Your task to perform on an android device: show emergency info Image 0: 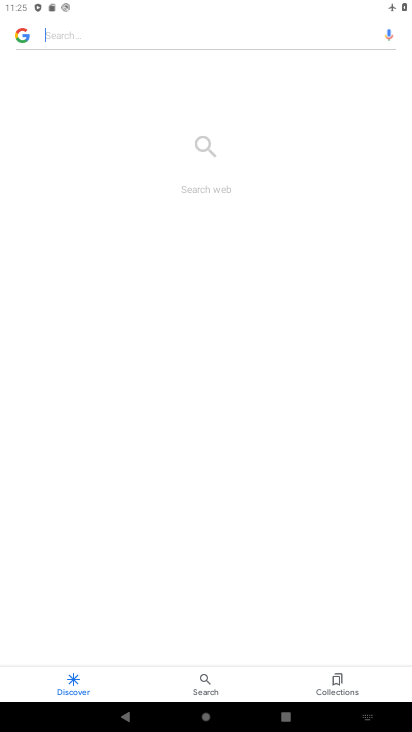
Step 0: press back button
Your task to perform on an android device: show emergency info Image 1: 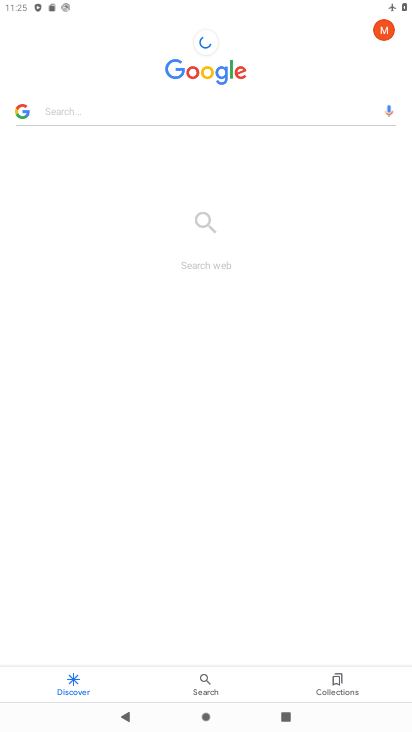
Step 1: press back button
Your task to perform on an android device: show emergency info Image 2: 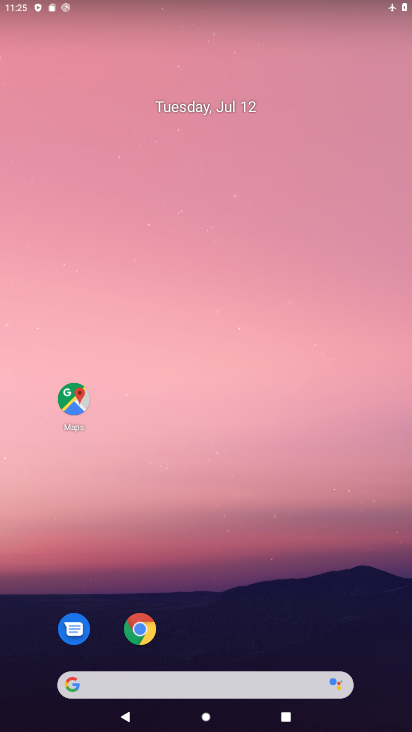
Step 2: drag from (215, 646) to (175, 138)
Your task to perform on an android device: show emergency info Image 3: 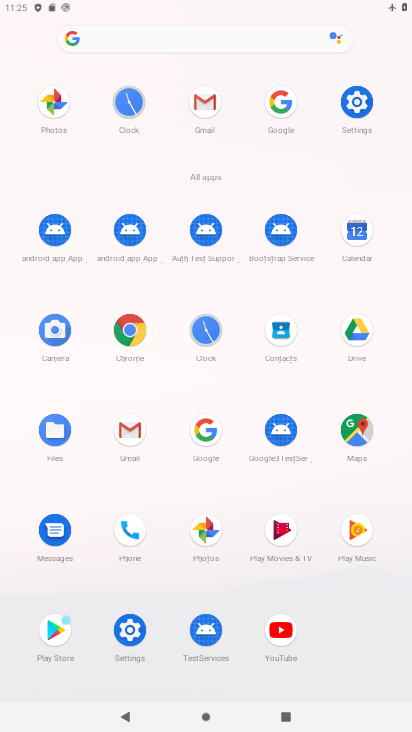
Step 3: click (359, 100)
Your task to perform on an android device: show emergency info Image 4: 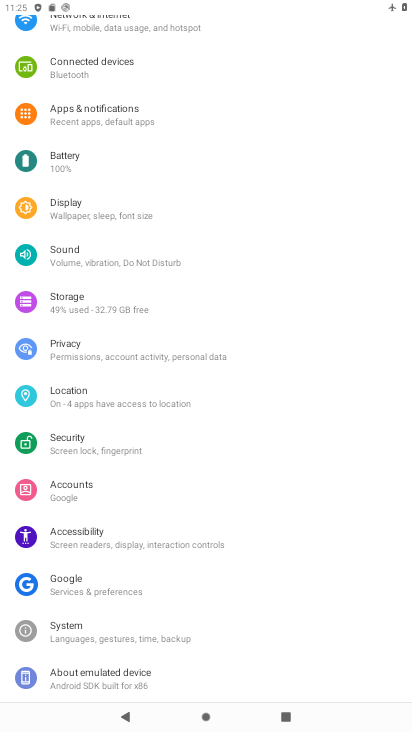
Step 4: click (359, 100)
Your task to perform on an android device: show emergency info Image 5: 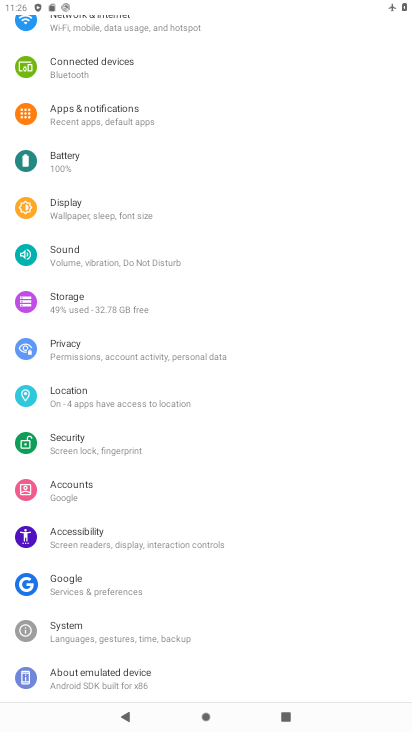
Step 5: click (118, 683)
Your task to perform on an android device: show emergency info Image 6: 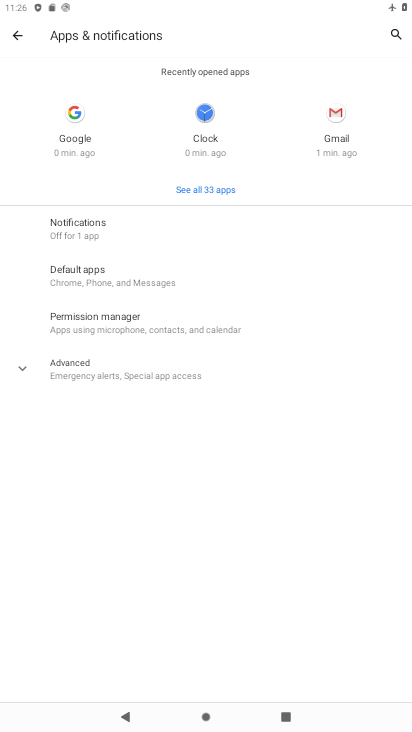
Step 6: click (15, 33)
Your task to perform on an android device: show emergency info Image 7: 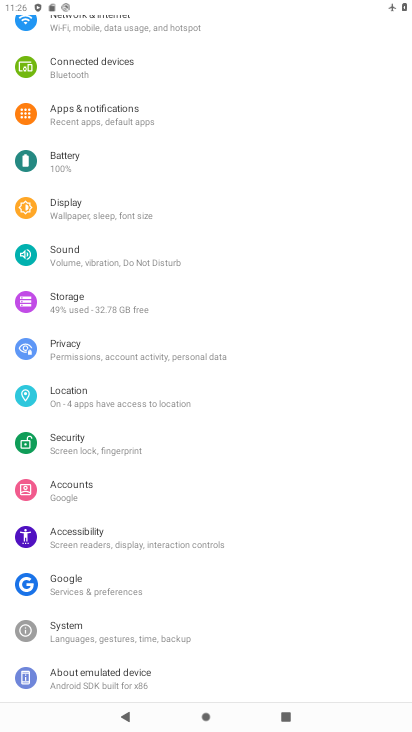
Step 7: click (64, 671)
Your task to perform on an android device: show emergency info Image 8: 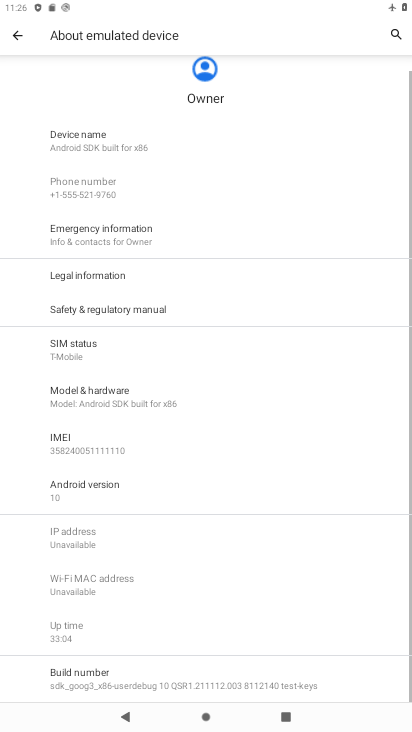
Step 8: click (91, 218)
Your task to perform on an android device: show emergency info Image 9: 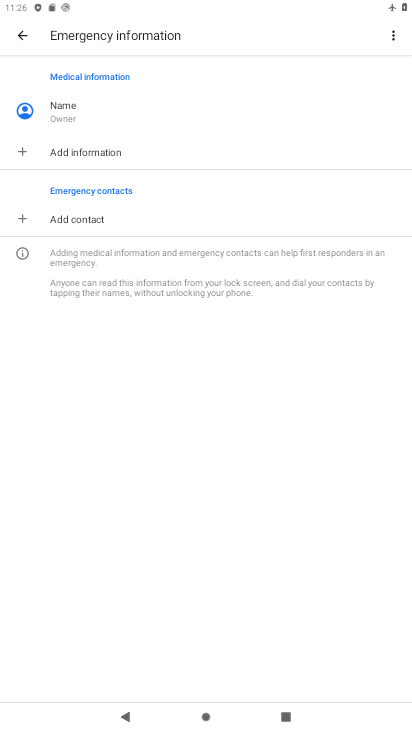
Step 9: task complete